Your task to perform on an android device: Open Reddit.com Image 0: 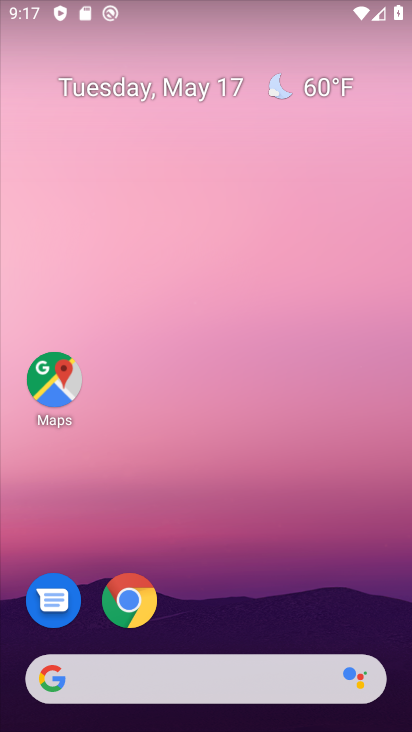
Step 0: click (131, 597)
Your task to perform on an android device: Open Reddit.com Image 1: 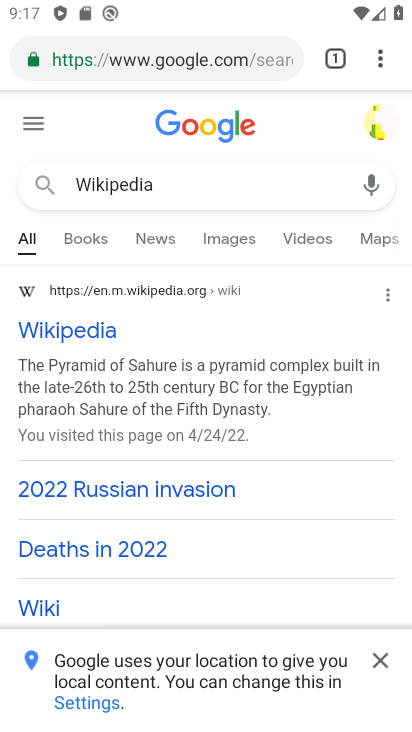
Step 1: type "Reddit.com"
Your task to perform on an android device: Open Reddit.com Image 2: 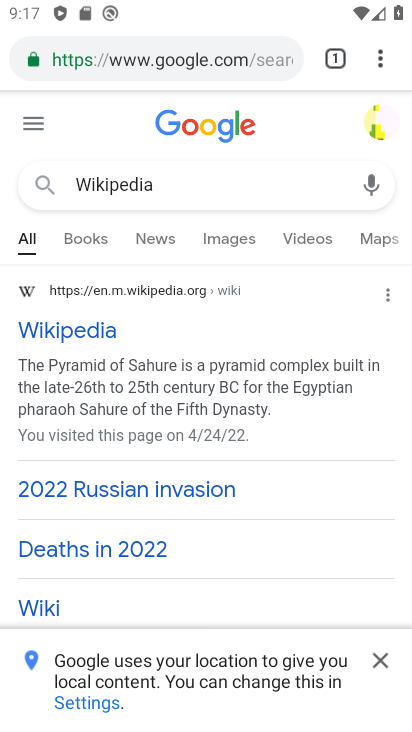
Step 2: click (290, 61)
Your task to perform on an android device: Open Reddit.com Image 3: 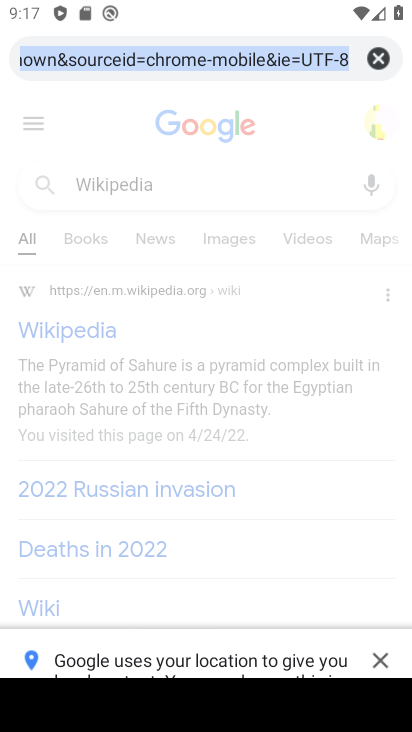
Step 3: click (313, 48)
Your task to perform on an android device: Open Reddit.com Image 4: 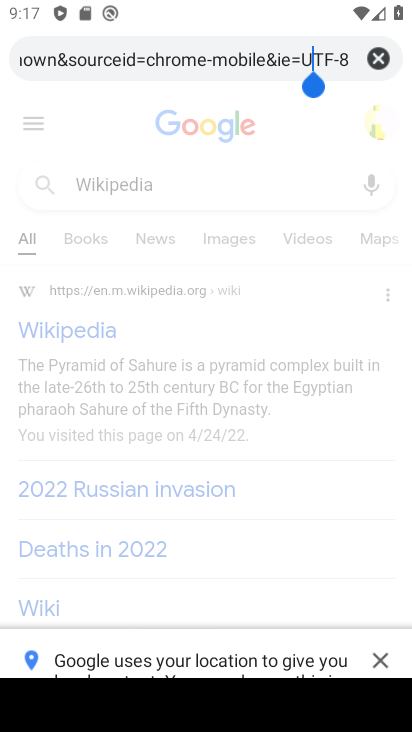
Step 4: click (373, 57)
Your task to perform on an android device: Open Reddit.com Image 5: 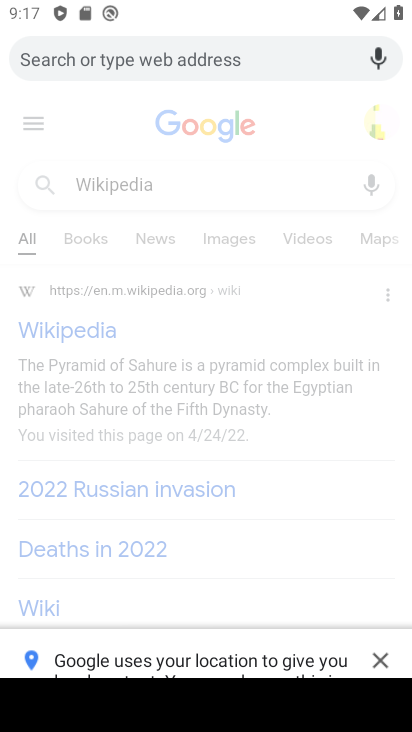
Step 5: click (186, 52)
Your task to perform on an android device: Open Reddit.com Image 6: 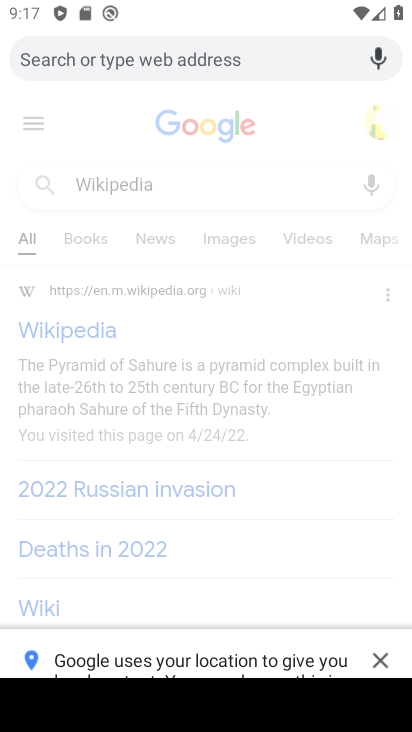
Step 6: type "Reddit.com"
Your task to perform on an android device: Open Reddit.com Image 7: 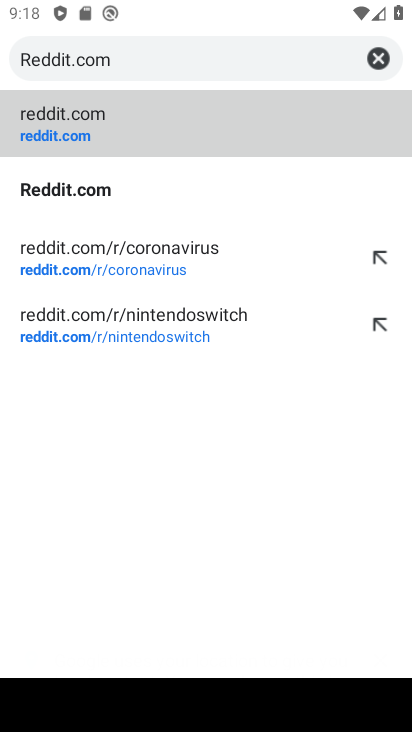
Step 7: click (56, 183)
Your task to perform on an android device: Open Reddit.com Image 8: 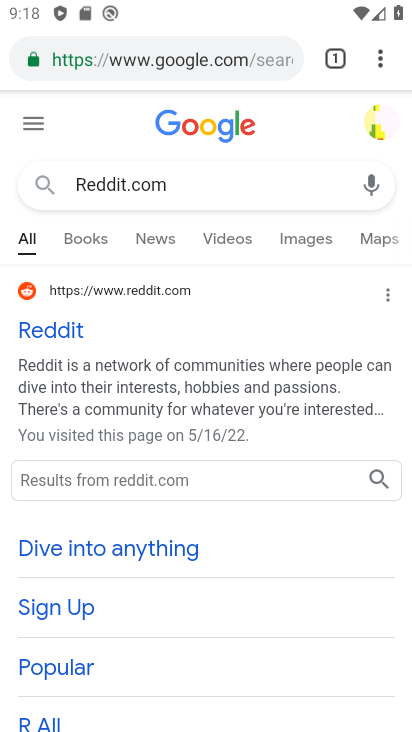
Step 8: task complete